Your task to perform on an android device: open app "Firefox Browser" (install if not already installed), go to login, and select forgot password Image 0: 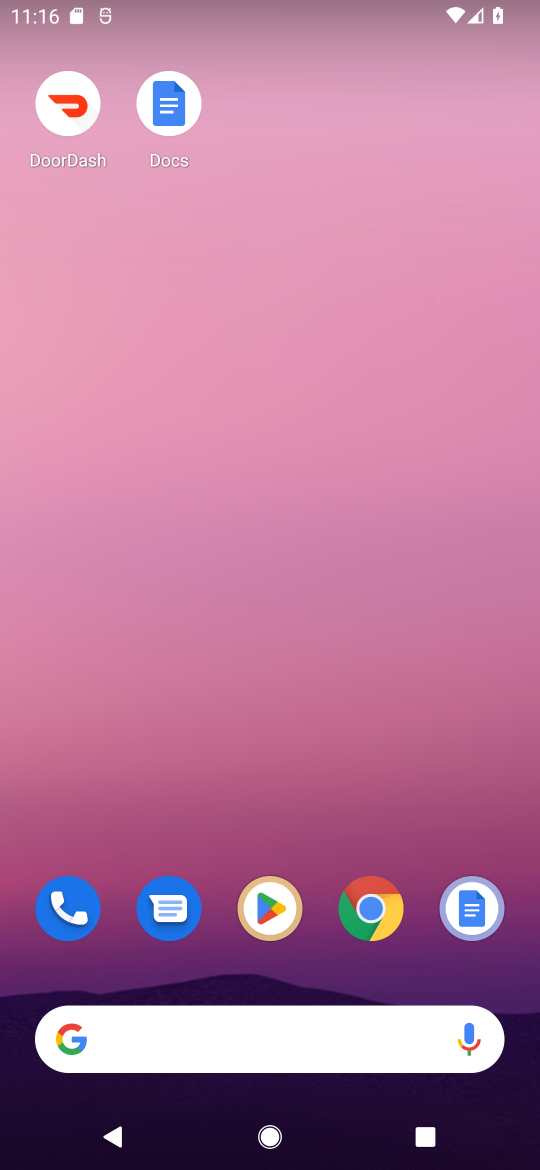
Step 0: click (281, 912)
Your task to perform on an android device: open app "Firefox Browser" (install if not already installed), go to login, and select forgot password Image 1: 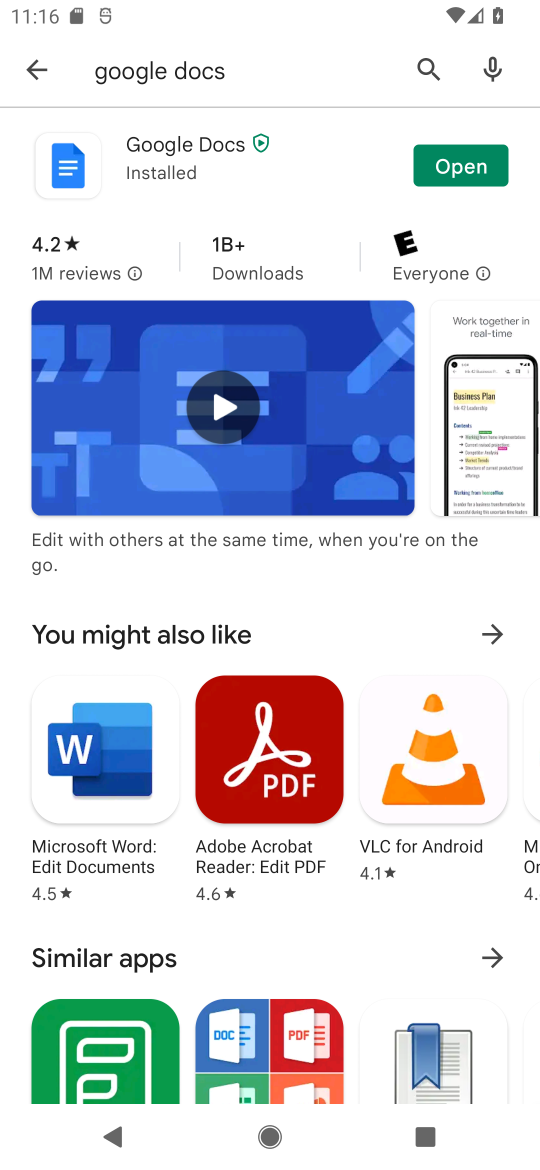
Step 1: click (425, 66)
Your task to perform on an android device: open app "Firefox Browser" (install if not already installed), go to login, and select forgot password Image 2: 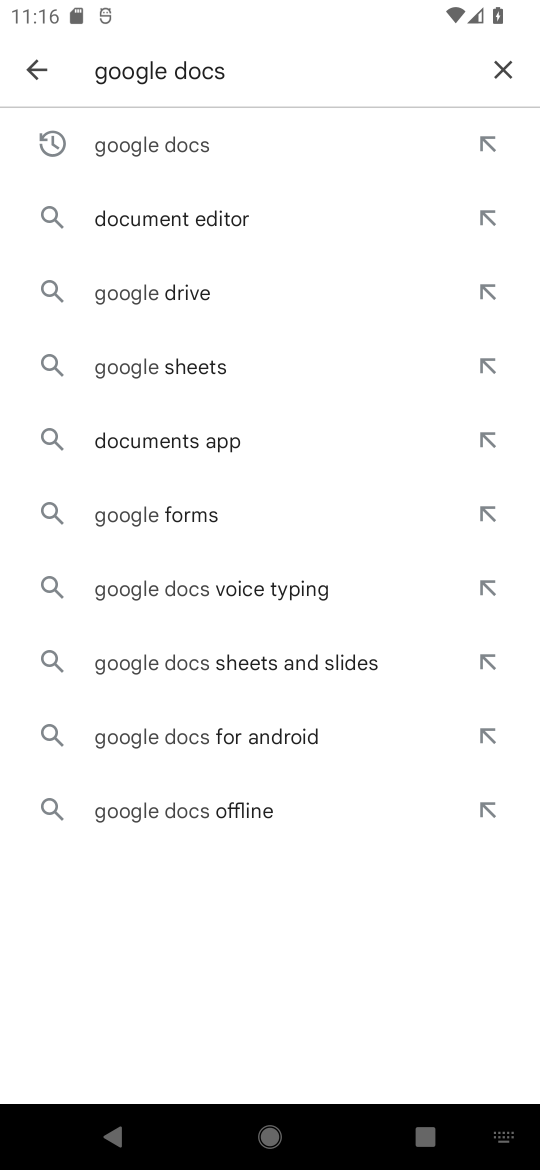
Step 2: click (510, 72)
Your task to perform on an android device: open app "Firefox Browser" (install if not already installed), go to login, and select forgot password Image 3: 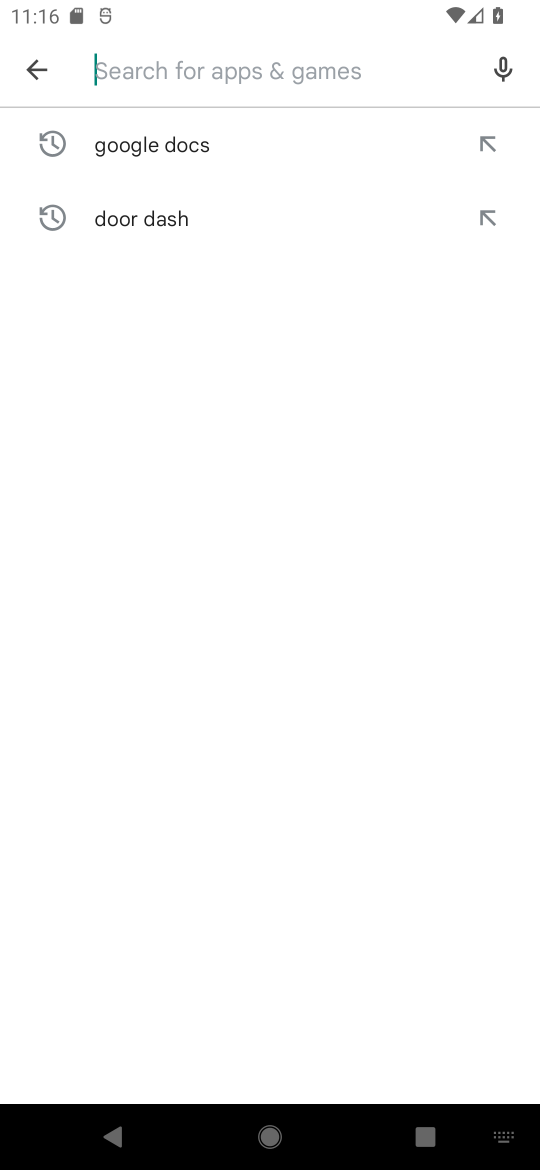
Step 3: type "firefox browser"
Your task to perform on an android device: open app "Firefox Browser" (install if not already installed), go to login, and select forgot password Image 4: 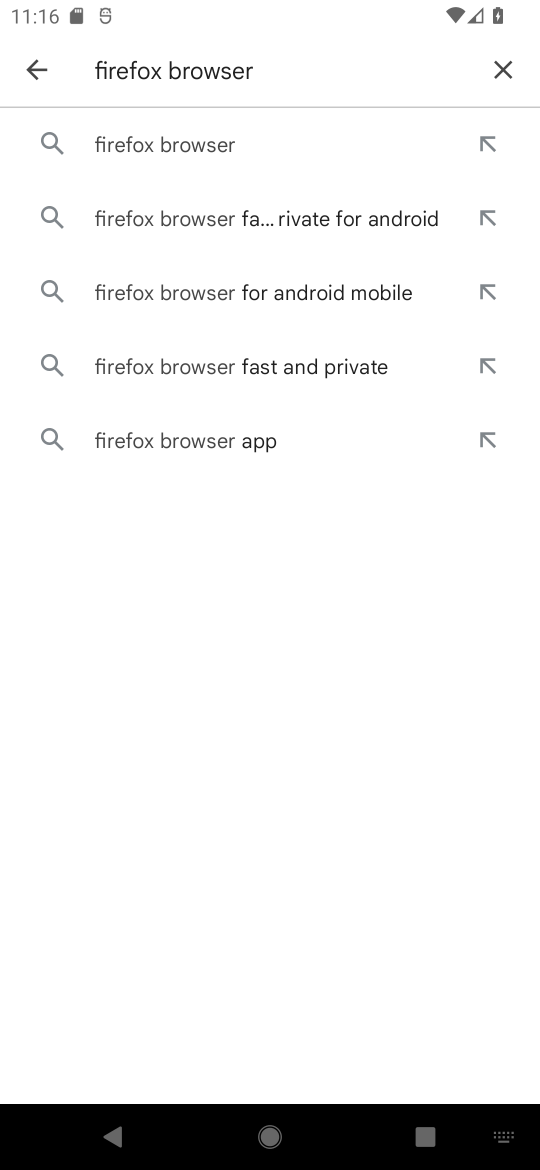
Step 4: click (227, 139)
Your task to perform on an android device: open app "Firefox Browser" (install if not already installed), go to login, and select forgot password Image 5: 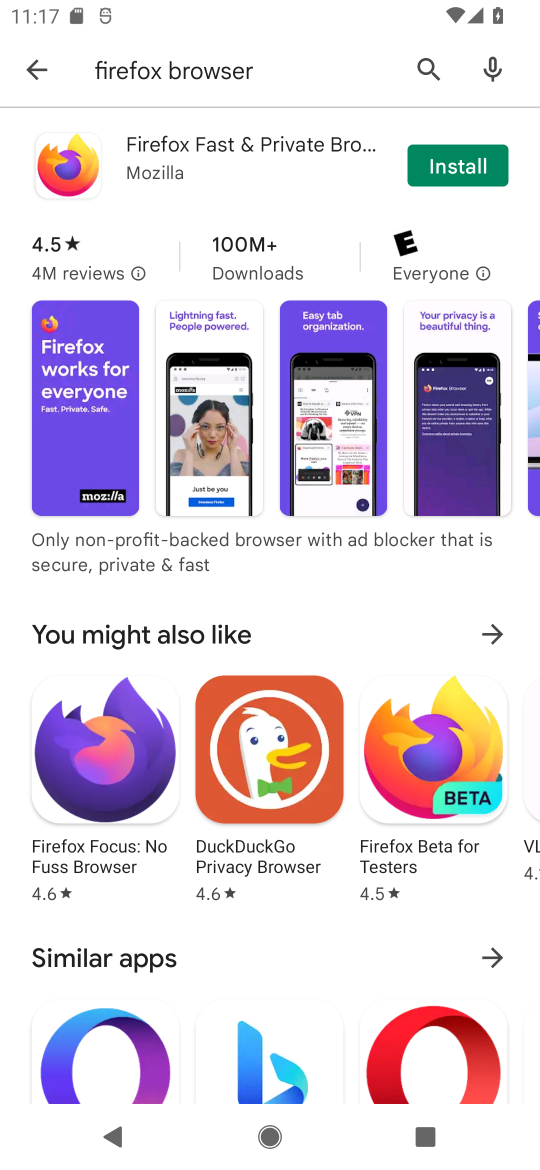
Step 5: click (438, 174)
Your task to perform on an android device: open app "Firefox Browser" (install if not already installed), go to login, and select forgot password Image 6: 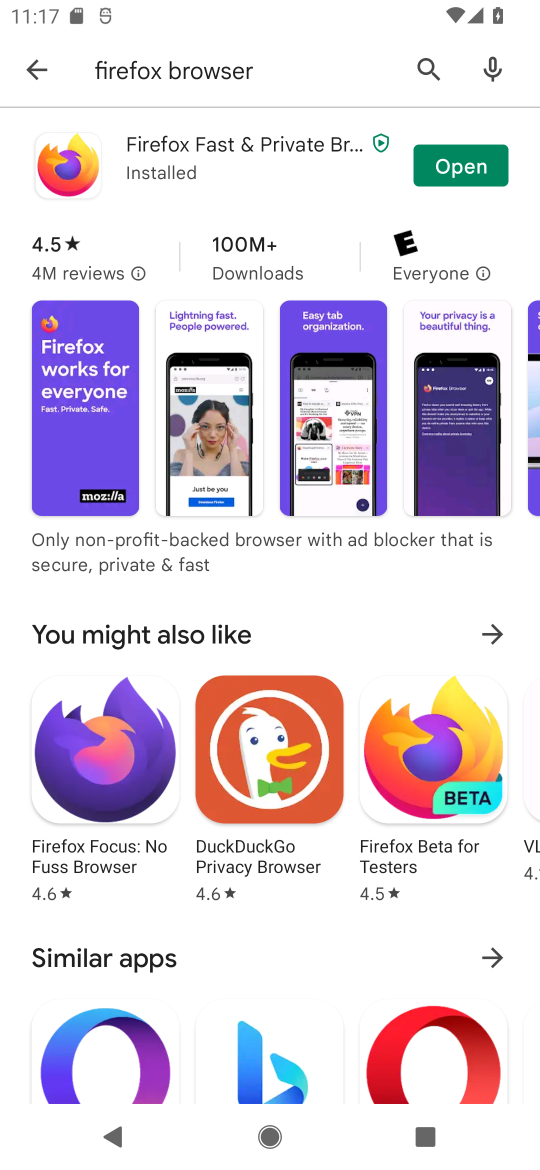
Step 6: click (434, 173)
Your task to perform on an android device: open app "Firefox Browser" (install if not already installed), go to login, and select forgot password Image 7: 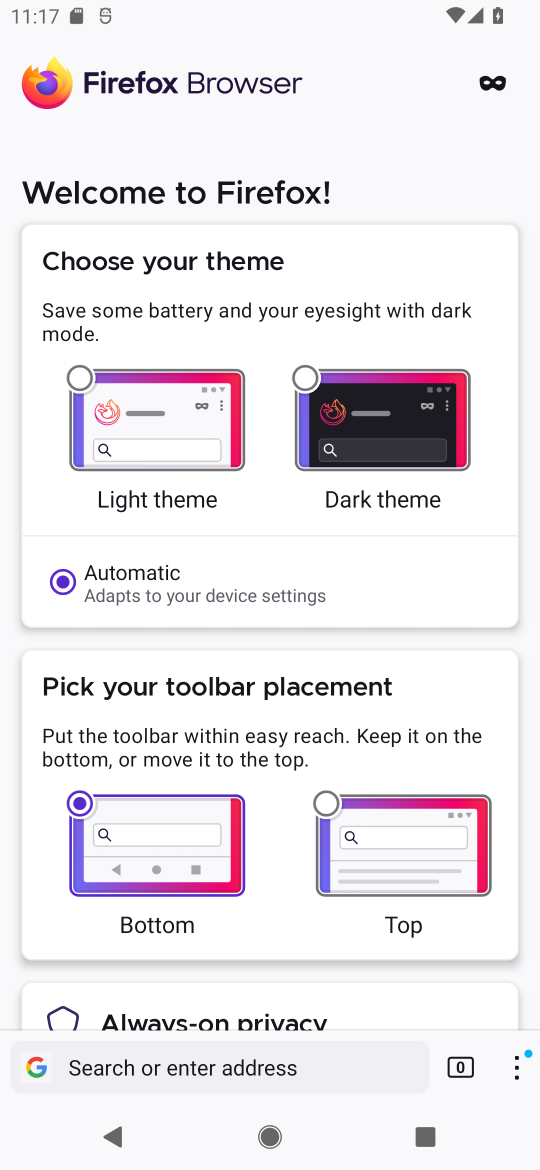
Step 7: drag from (277, 813) to (147, 337)
Your task to perform on an android device: open app "Firefox Browser" (install if not already installed), go to login, and select forgot password Image 8: 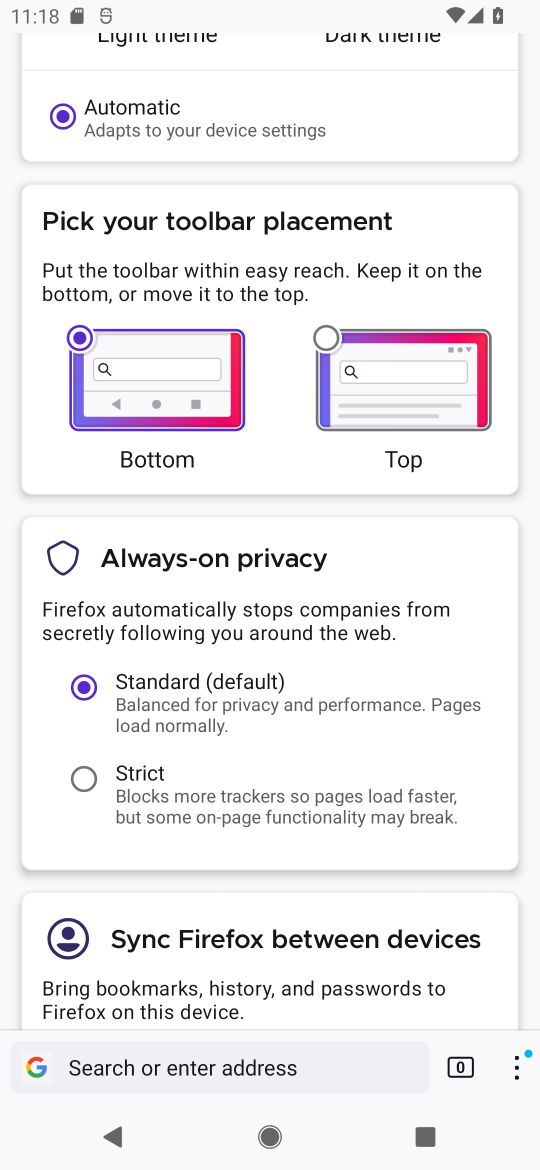
Step 8: drag from (282, 813) to (123, 363)
Your task to perform on an android device: open app "Firefox Browser" (install if not already installed), go to login, and select forgot password Image 9: 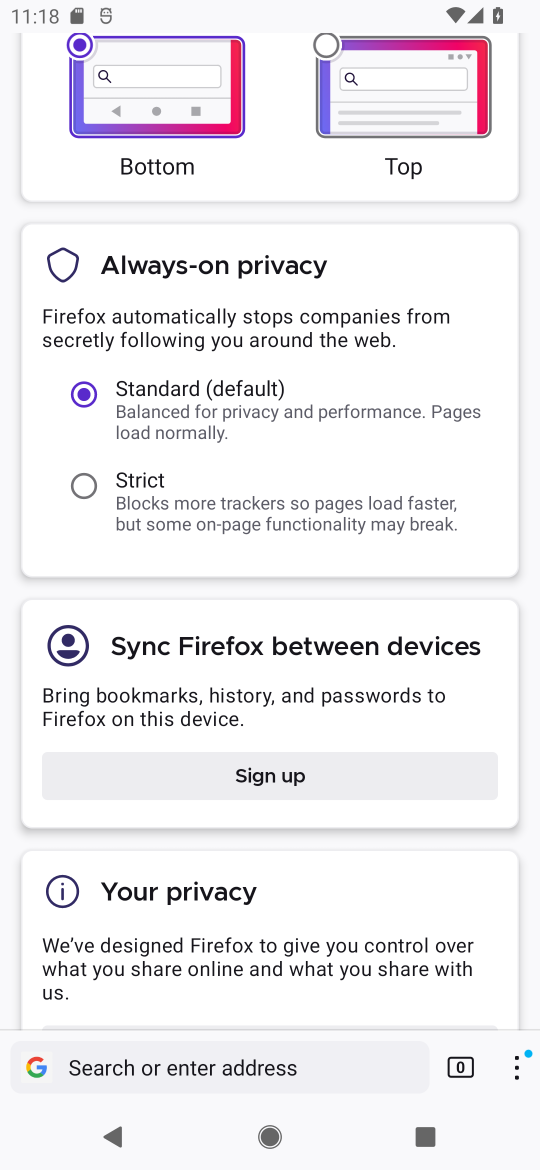
Step 9: drag from (258, 841) to (151, 336)
Your task to perform on an android device: open app "Firefox Browser" (install if not already installed), go to login, and select forgot password Image 10: 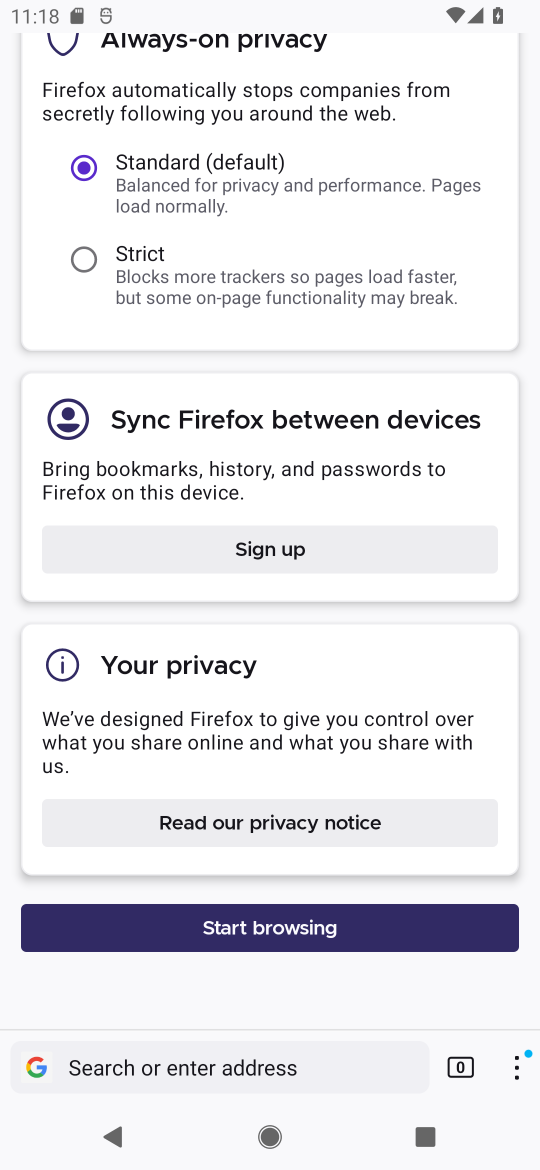
Step 10: click (245, 769)
Your task to perform on an android device: open app "Firefox Browser" (install if not already installed), go to login, and select forgot password Image 11: 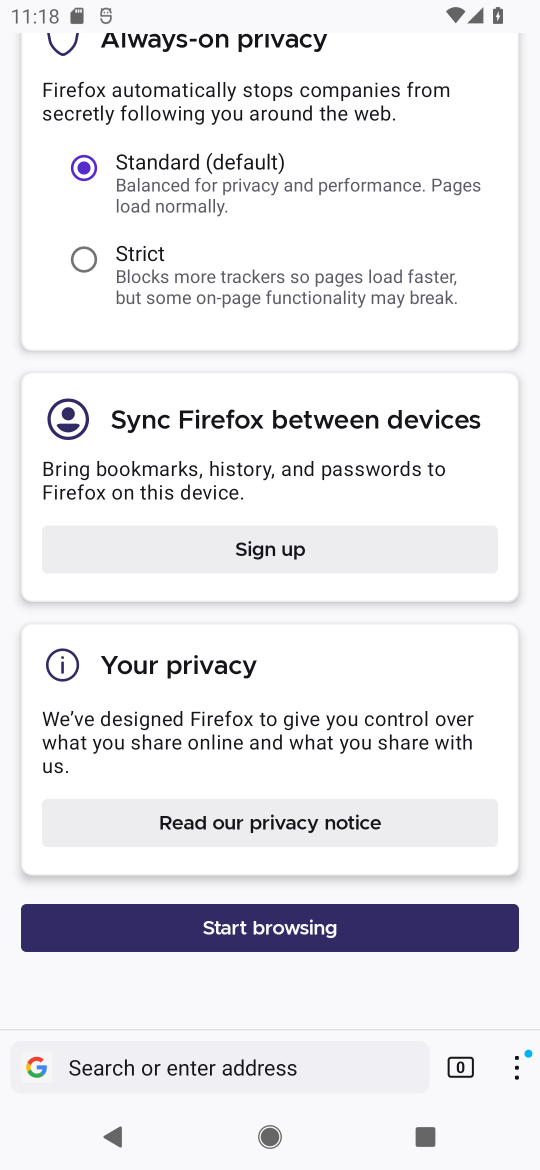
Step 11: task complete